Your task to perform on an android device: check google app version Image 0: 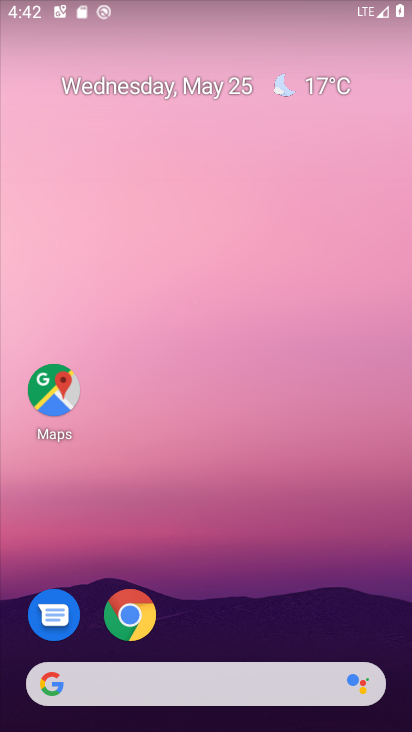
Step 0: drag from (253, 637) to (231, 166)
Your task to perform on an android device: check google app version Image 1: 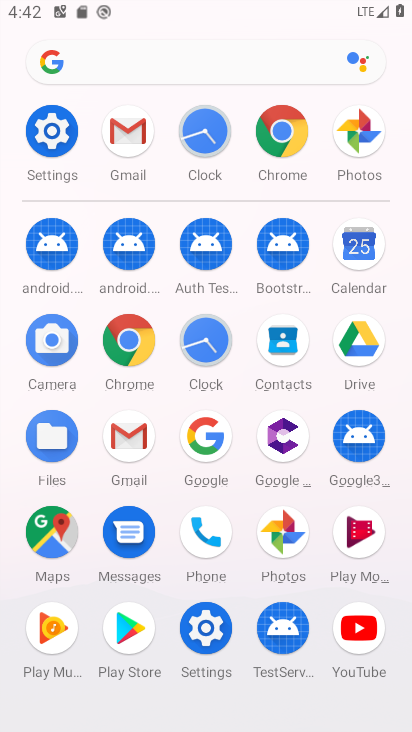
Step 1: click (209, 449)
Your task to perform on an android device: check google app version Image 2: 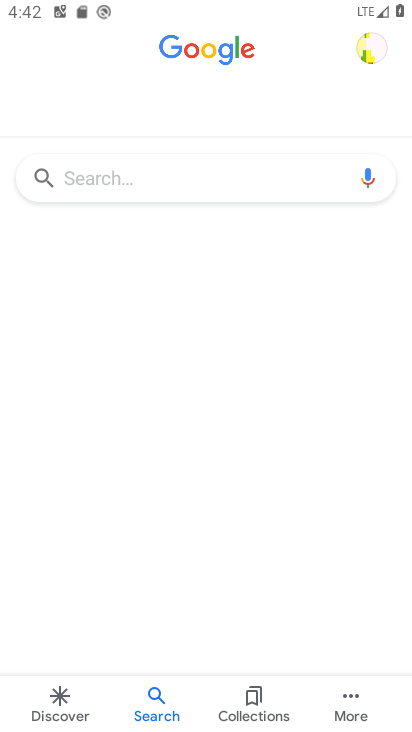
Step 2: click (346, 702)
Your task to perform on an android device: check google app version Image 3: 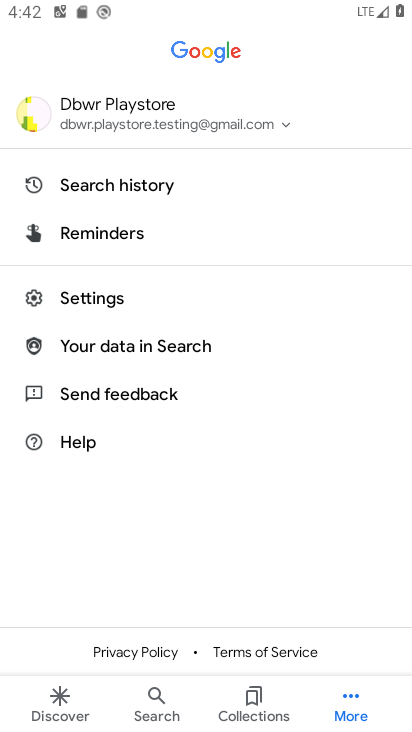
Step 3: click (98, 302)
Your task to perform on an android device: check google app version Image 4: 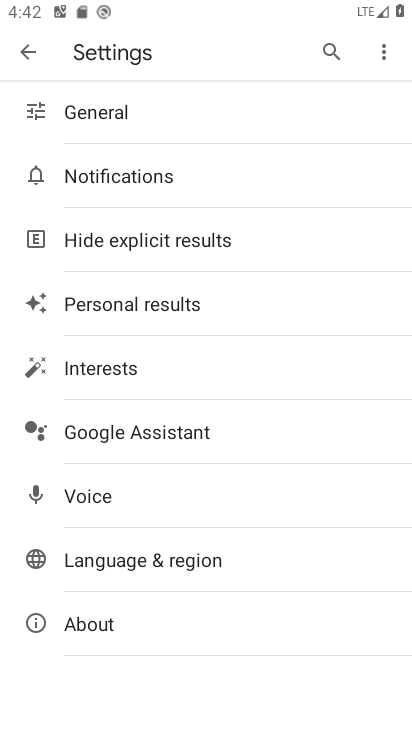
Step 4: click (138, 614)
Your task to perform on an android device: check google app version Image 5: 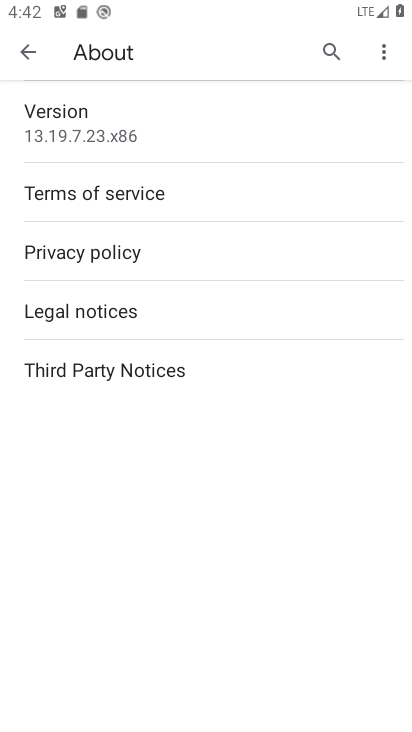
Step 5: click (81, 112)
Your task to perform on an android device: check google app version Image 6: 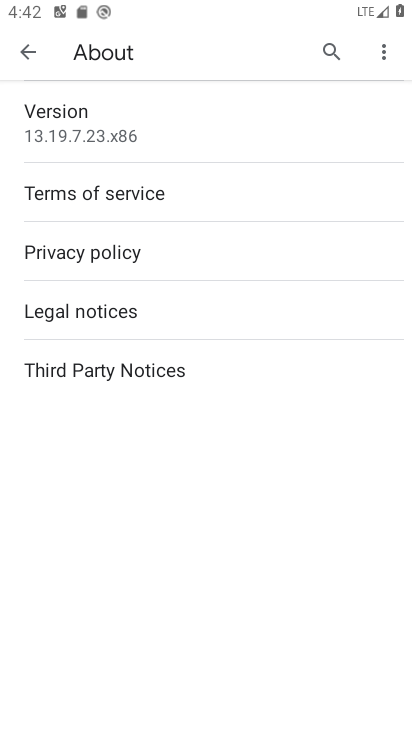
Step 6: task complete